Your task to perform on an android device: Open privacy settings Image 0: 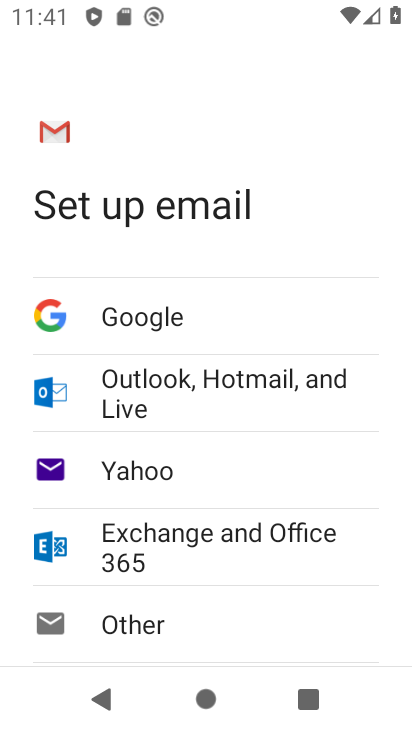
Step 0: press home button
Your task to perform on an android device: Open privacy settings Image 1: 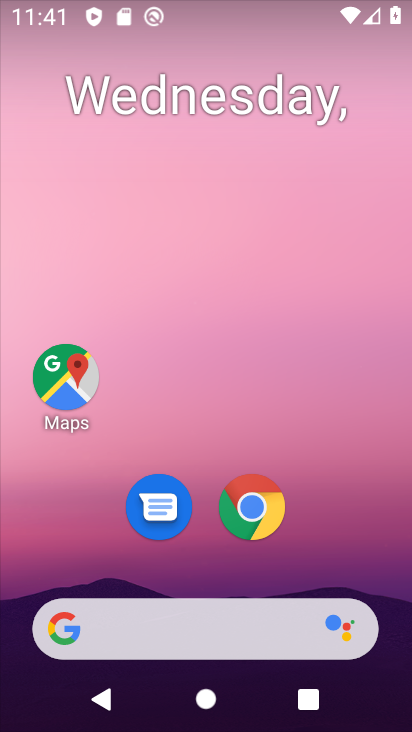
Step 1: click (260, 510)
Your task to perform on an android device: Open privacy settings Image 2: 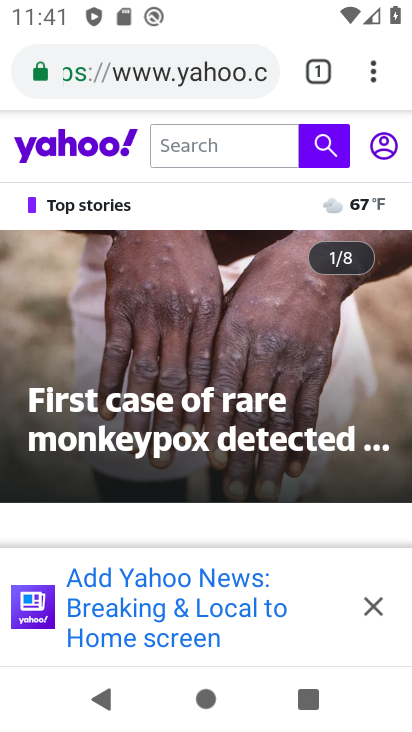
Step 2: press home button
Your task to perform on an android device: Open privacy settings Image 3: 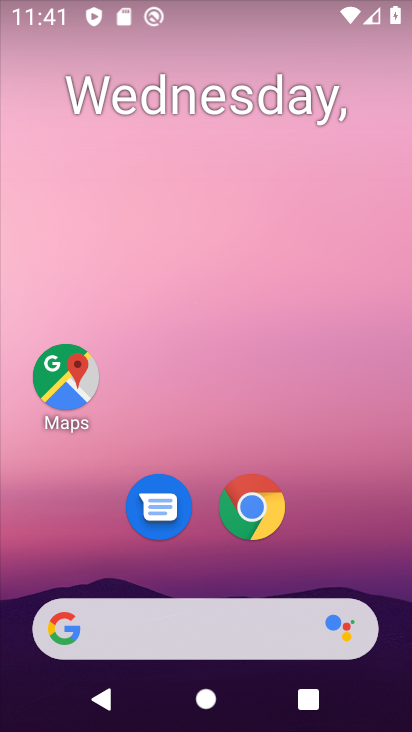
Step 3: drag from (144, 524) to (33, 71)
Your task to perform on an android device: Open privacy settings Image 4: 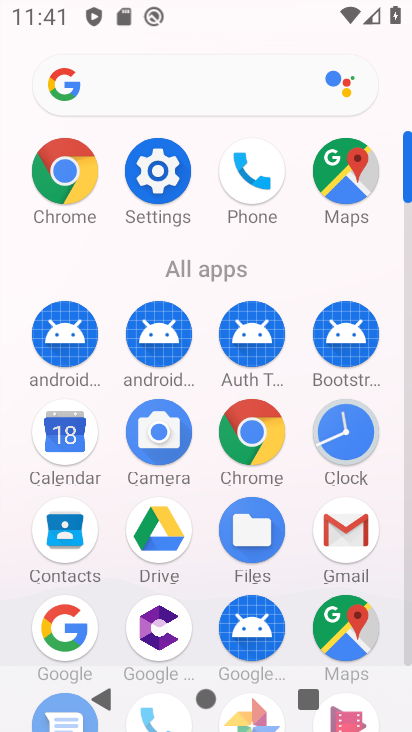
Step 4: click (146, 174)
Your task to perform on an android device: Open privacy settings Image 5: 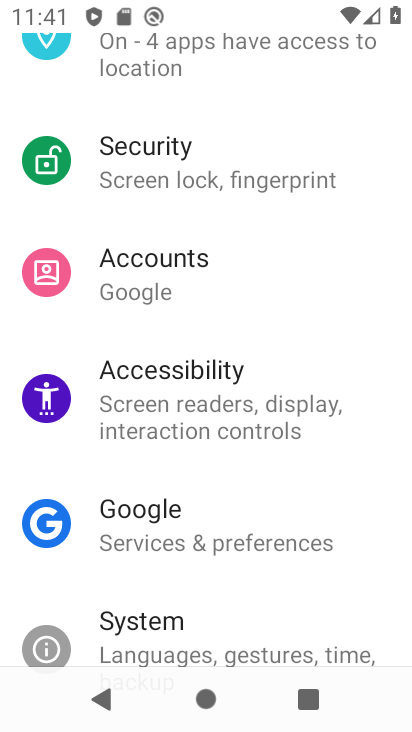
Step 5: drag from (190, 217) to (212, 610)
Your task to perform on an android device: Open privacy settings Image 6: 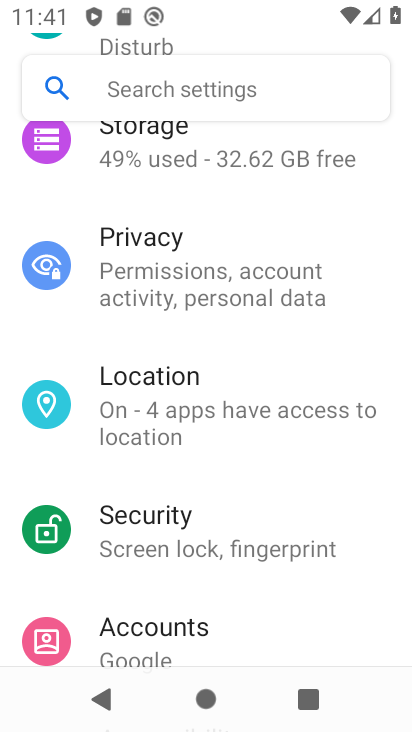
Step 6: click (107, 291)
Your task to perform on an android device: Open privacy settings Image 7: 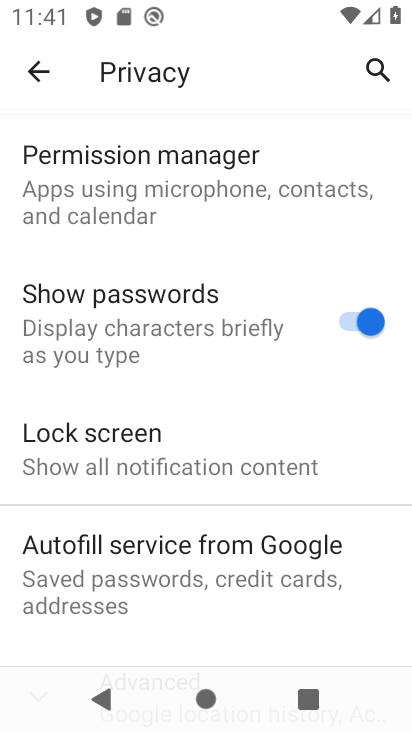
Step 7: task complete